Your task to perform on an android device: make emails show in primary in the gmail app Image 0: 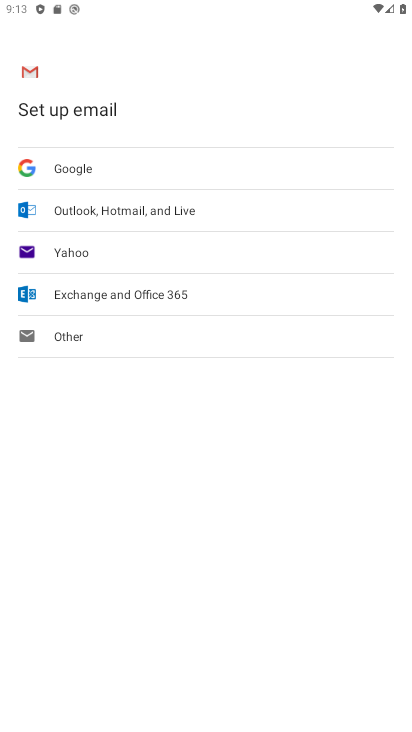
Step 0: press home button
Your task to perform on an android device: make emails show in primary in the gmail app Image 1: 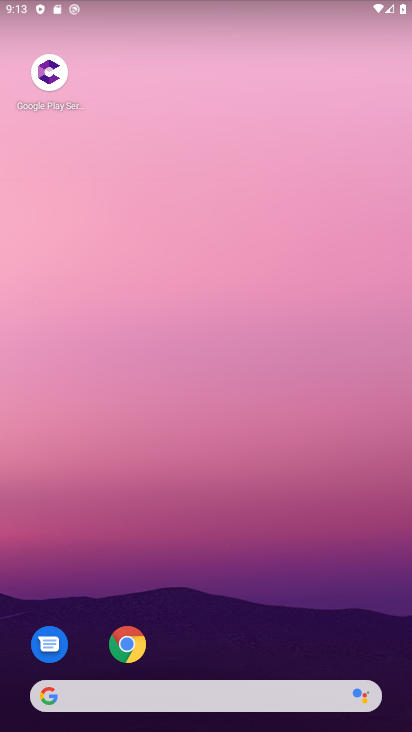
Step 1: drag from (235, 641) to (275, 109)
Your task to perform on an android device: make emails show in primary in the gmail app Image 2: 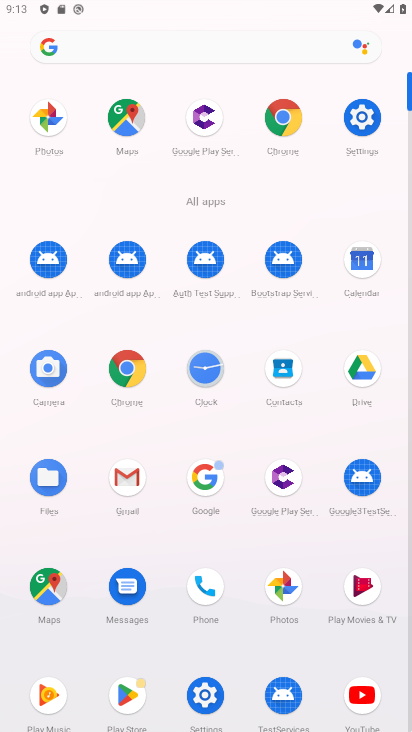
Step 2: click (123, 473)
Your task to perform on an android device: make emails show in primary in the gmail app Image 3: 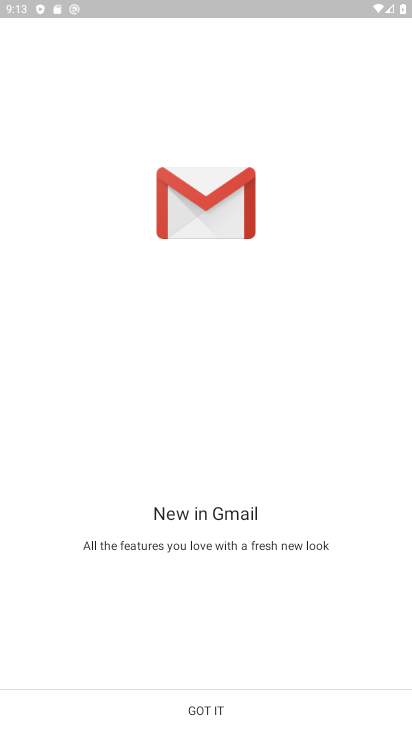
Step 3: click (207, 709)
Your task to perform on an android device: make emails show in primary in the gmail app Image 4: 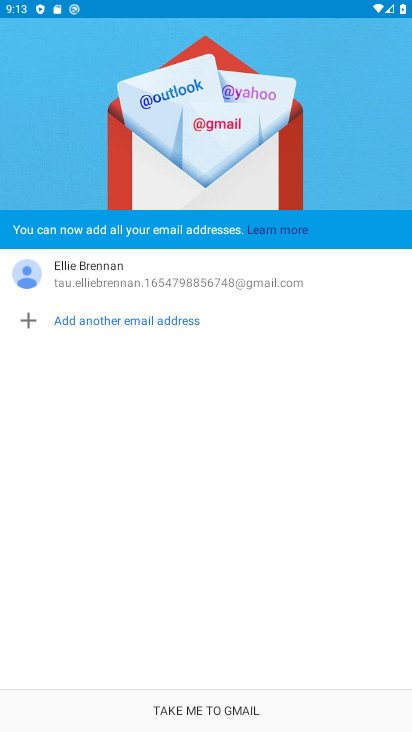
Step 4: click (206, 711)
Your task to perform on an android device: make emails show in primary in the gmail app Image 5: 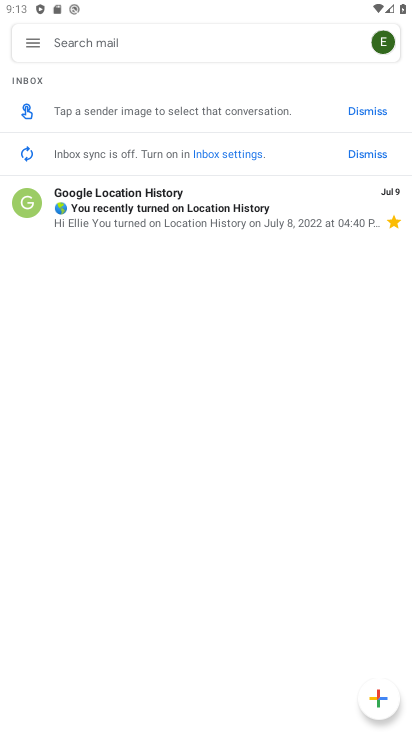
Step 5: click (38, 41)
Your task to perform on an android device: make emails show in primary in the gmail app Image 6: 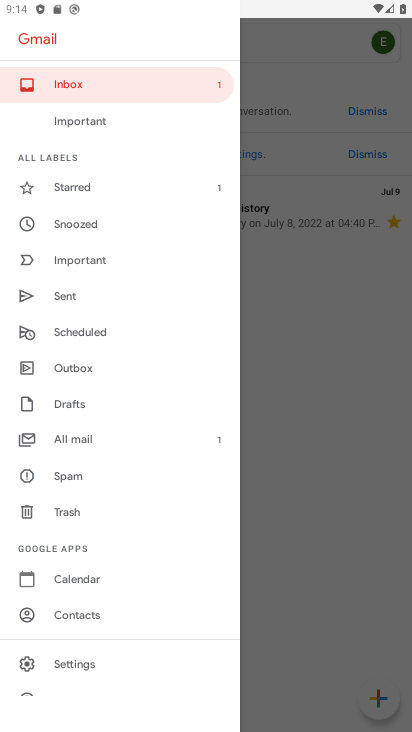
Step 6: click (112, 664)
Your task to perform on an android device: make emails show in primary in the gmail app Image 7: 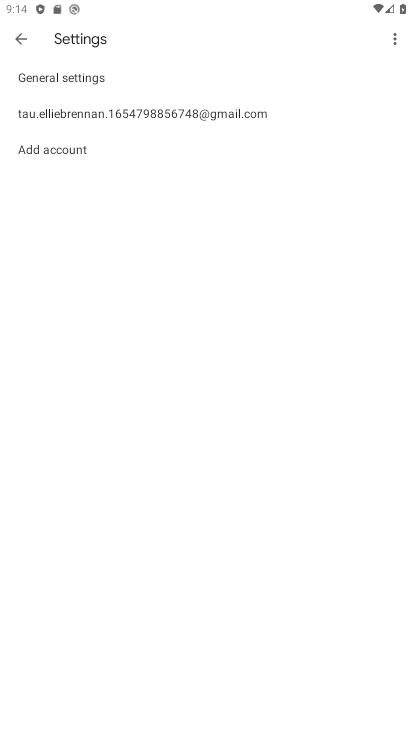
Step 7: click (272, 106)
Your task to perform on an android device: make emails show in primary in the gmail app Image 8: 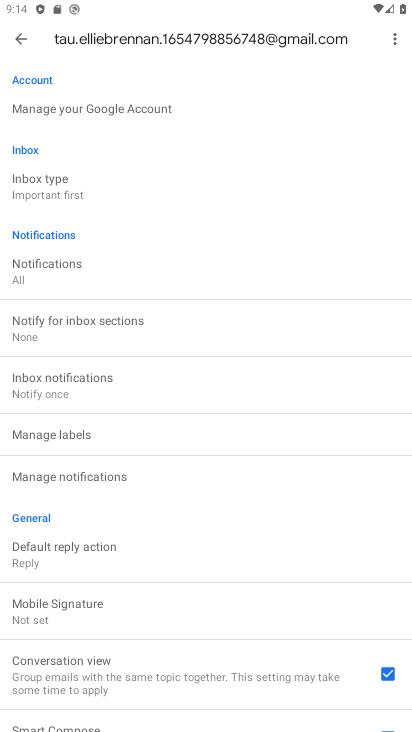
Step 8: click (102, 190)
Your task to perform on an android device: make emails show in primary in the gmail app Image 9: 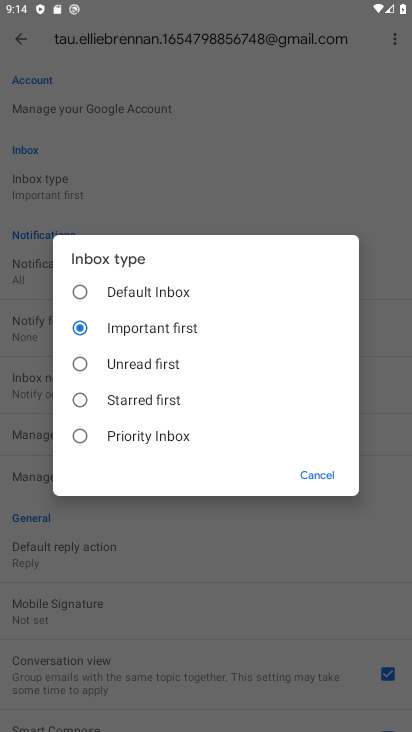
Step 9: click (82, 287)
Your task to perform on an android device: make emails show in primary in the gmail app Image 10: 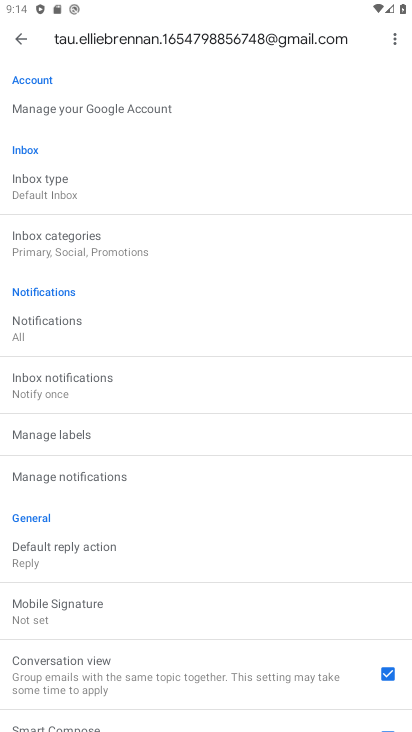
Step 10: task complete